Your task to perform on an android device: turn notification dots on Image 0: 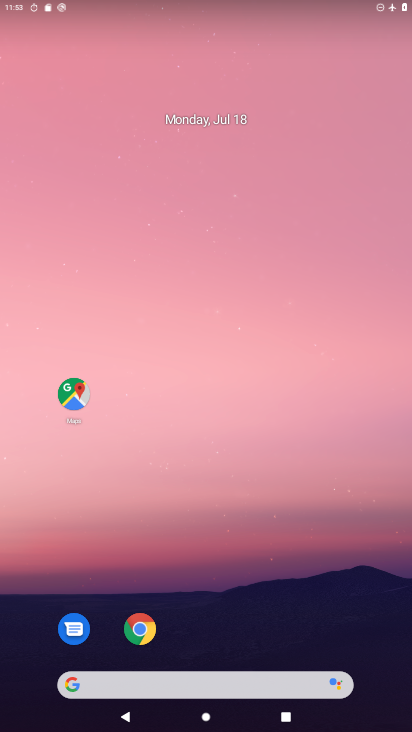
Step 0: drag from (291, 415) to (279, 120)
Your task to perform on an android device: turn notification dots on Image 1: 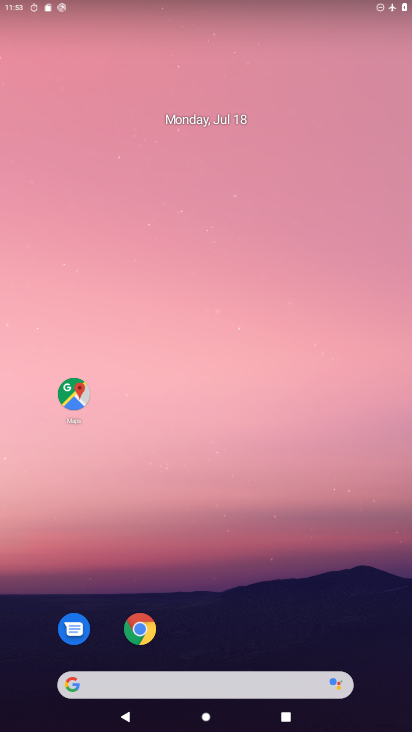
Step 1: drag from (306, 584) to (235, 100)
Your task to perform on an android device: turn notification dots on Image 2: 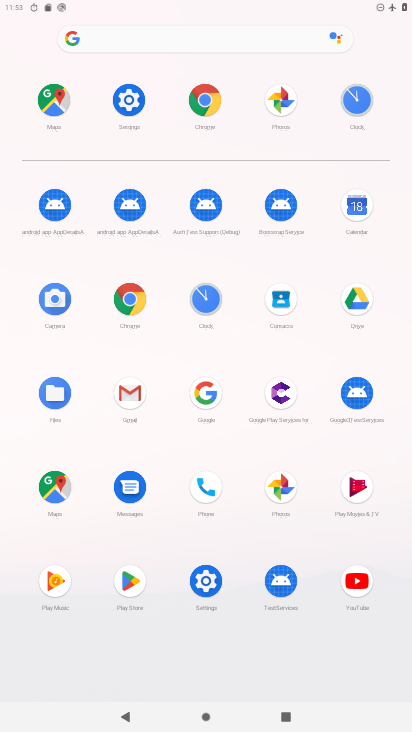
Step 2: click (125, 97)
Your task to perform on an android device: turn notification dots on Image 3: 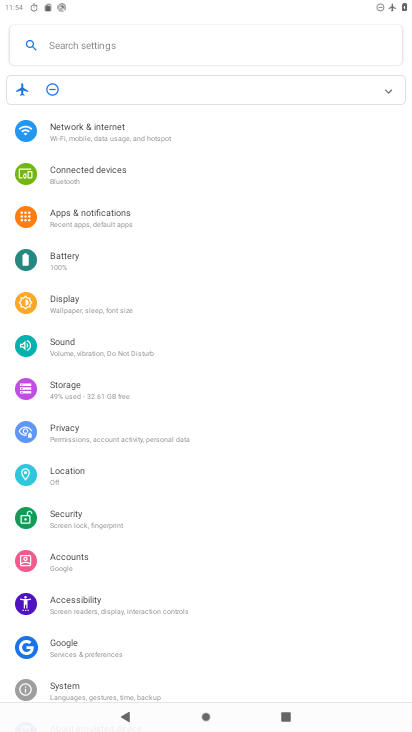
Step 3: click (95, 222)
Your task to perform on an android device: turn notification dots on Image 4: 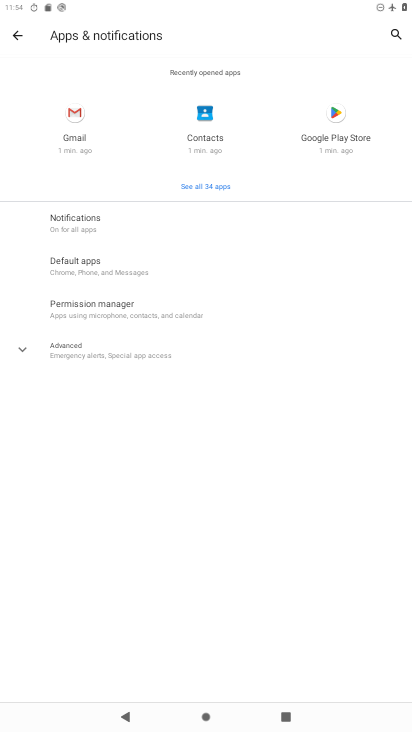
Step 4: click (94, 347)
Your task to perform on an android device: turn notification dots on Image 5: 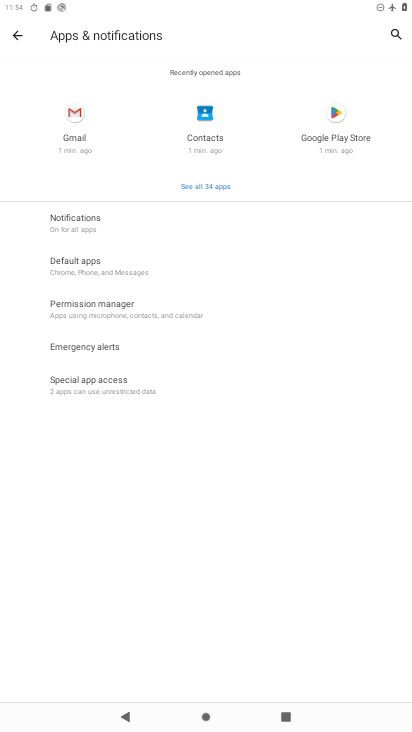
Step 5: click (87, 223)
Your task to perform on an android device: turn notification dots on Image 6: 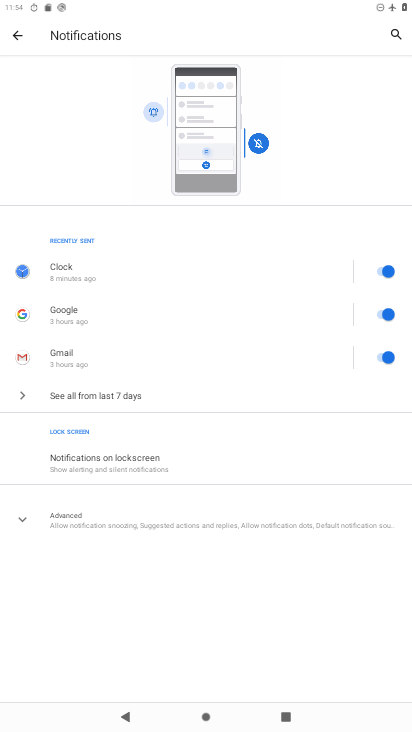
Step 6: click (193, 514)
Your task to perform on an android device: turn notification dots on Image 7: 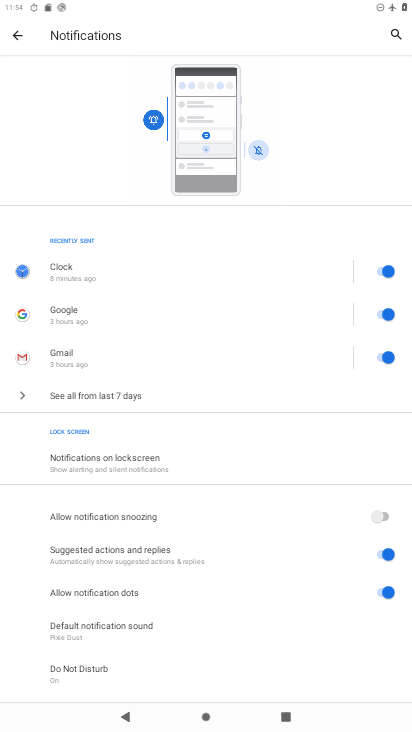
Step 7: task complete